Your task to perform on an android device: add a contact Image 0: 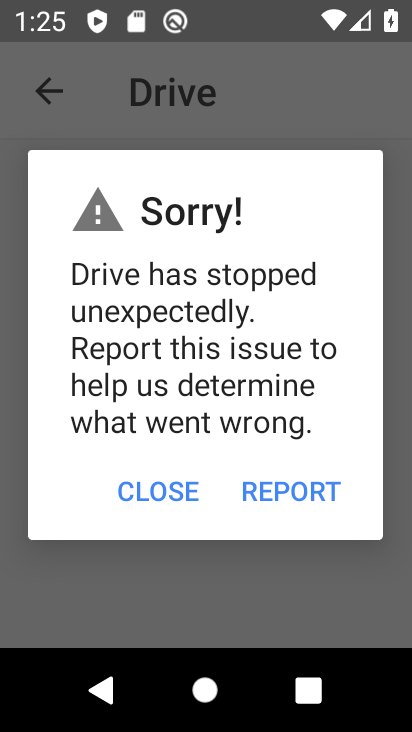
Step 0: press home button
Your task to perform on an android device: add a contact Image 1: 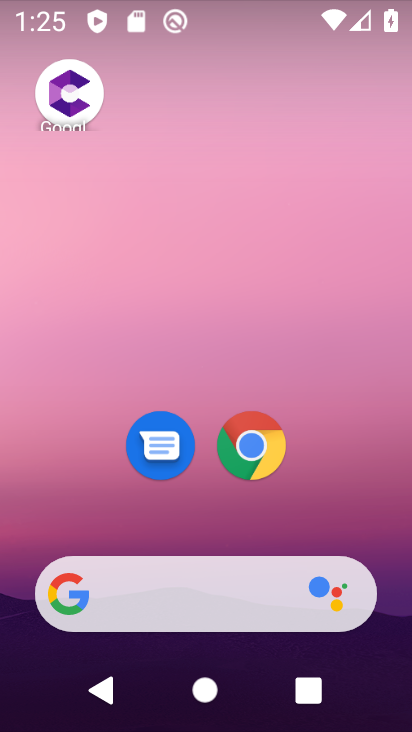
Step 1: drag from (199, 527) to (185, 31)
Your task to perform on an android device: add a contact Image 2: 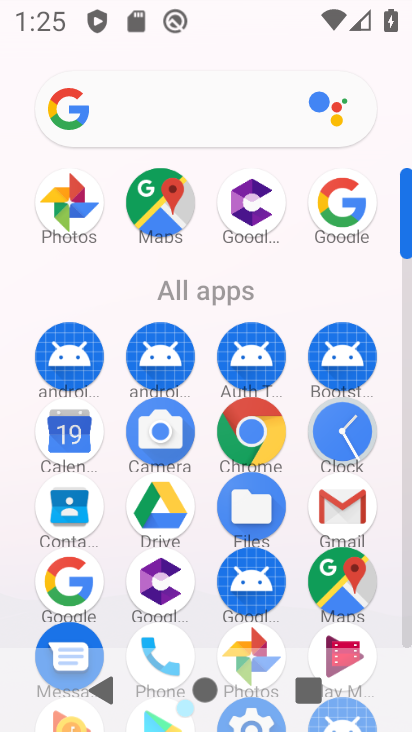
Step 2: click (65, 513)
Your task to perform on an android device: add a contact Image 3: 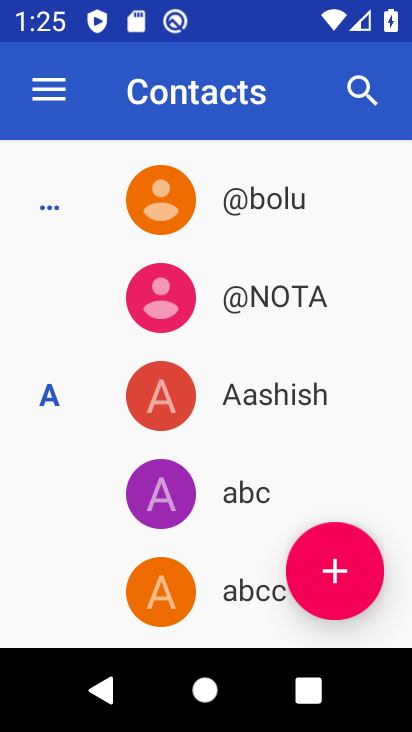
Step 3: click (343, 568)
Your task to perform on an android device: add a contact Image 4: 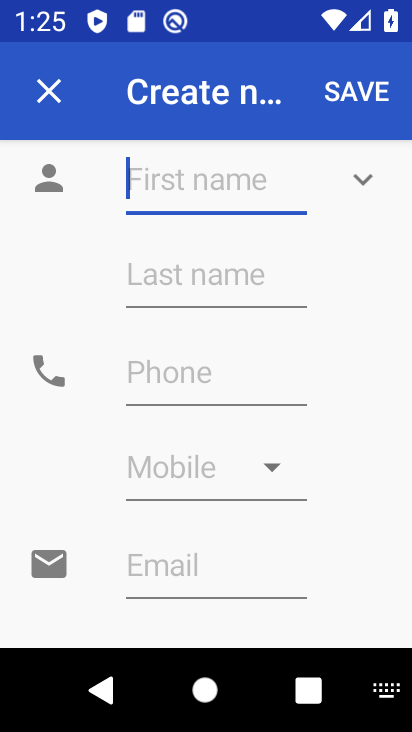
Step 4: type "awszdrfcgyhbjikmm"
Your task to perform on an android device: add a contact Image 5: 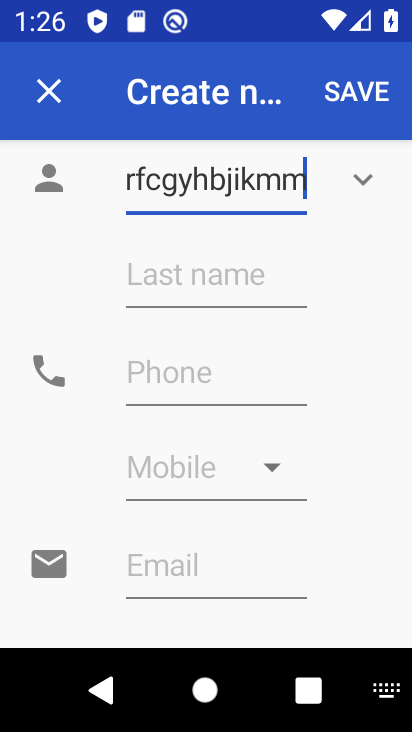
Step 5: click (232, 364)
Your task to perform on an android device: add a contact Image 6: 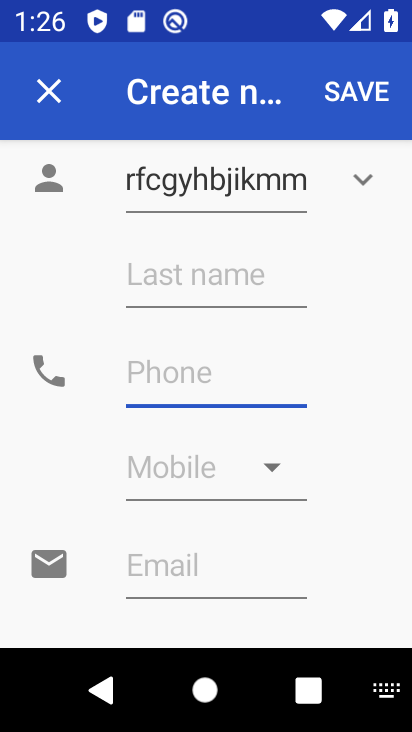
Step 6: type "676767899989"
Your task to perform on an android device: add a contact Image 7: 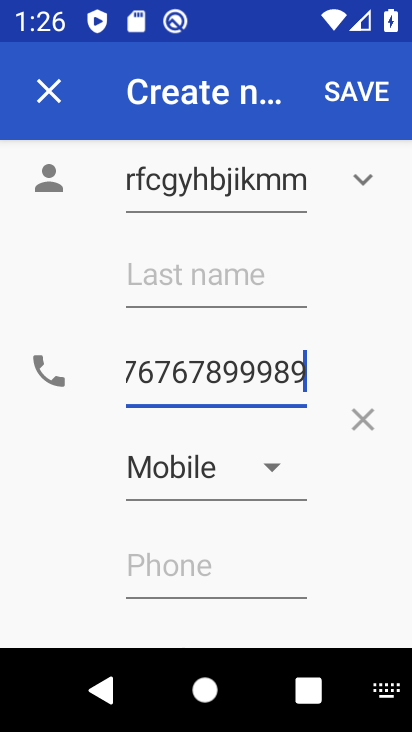
Step 7: click (367, 90)
Your task to perform on an android device: add a contact Image 8: 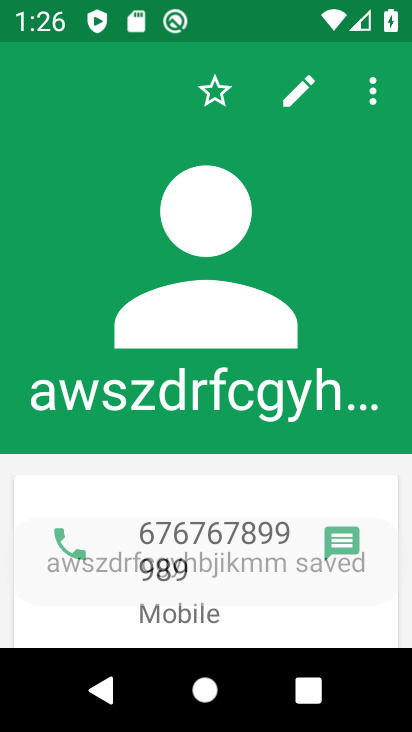
Step 8: task complete